Your task to perform on an android device: Open Google Maps Image 0: 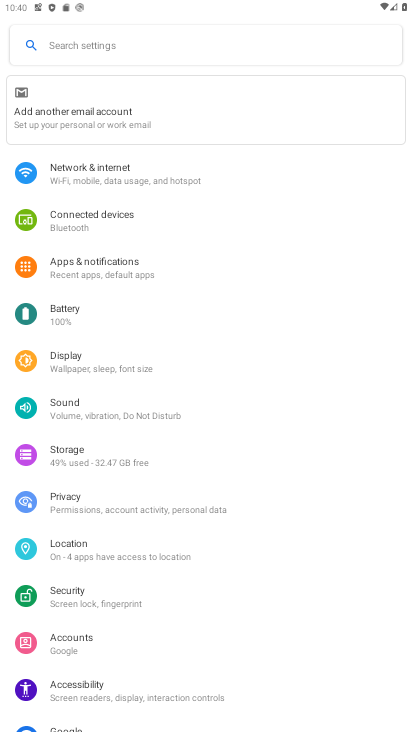
Step 0: press home button
Your task to perform on an android device: Open Google Maps Image 1: 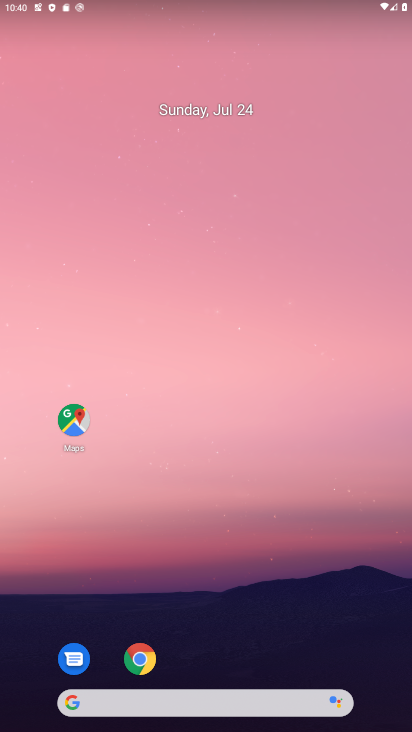
Step 1: click (70, 417)
Your task to perform on an android device: Open Google Maps Image 2: 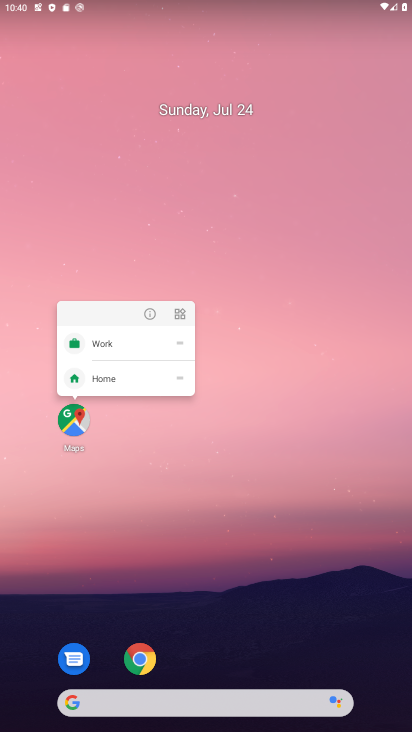
Step 2: click (70, 417)
Your task to perform on an android device: Open Google Maps Image 3: 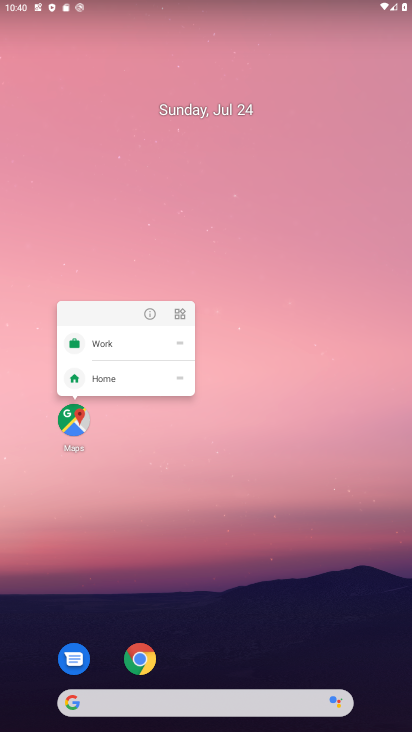
Step 3: click (70, 417)
Your task to perform on an android device: Open Google Maps Image 4: 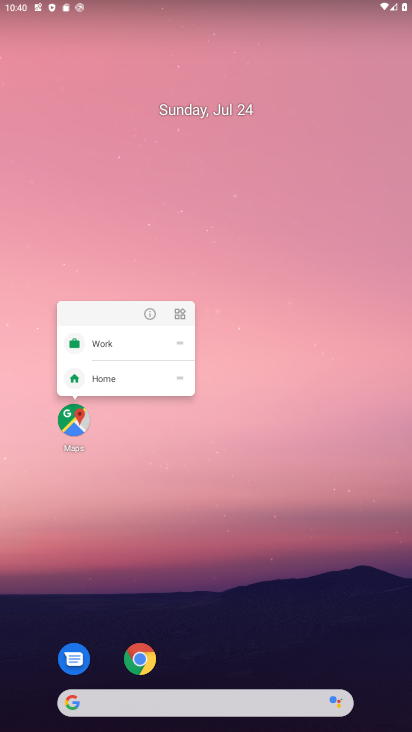
Step 4: click (70, 417)
Your task to perform on an android device: Open Google Maps Image 5: 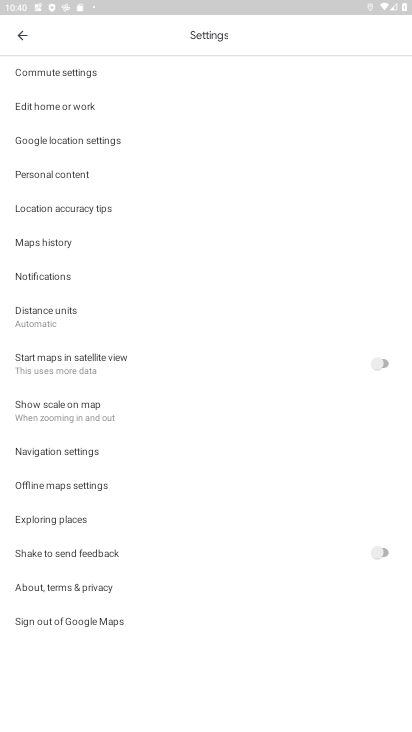
Step 5: click (22, 35)
Your task to perform on an android device: Open Google Maps Image 6: 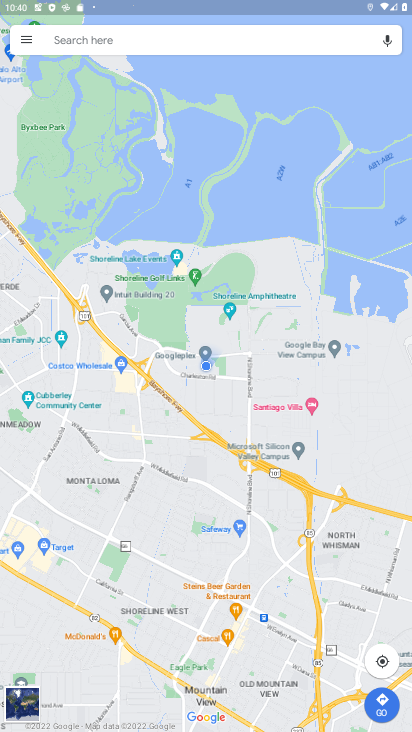
Step 6: task complete